Your task to perform on an android device: open chrome and create a bookmark for the current page Image 0: 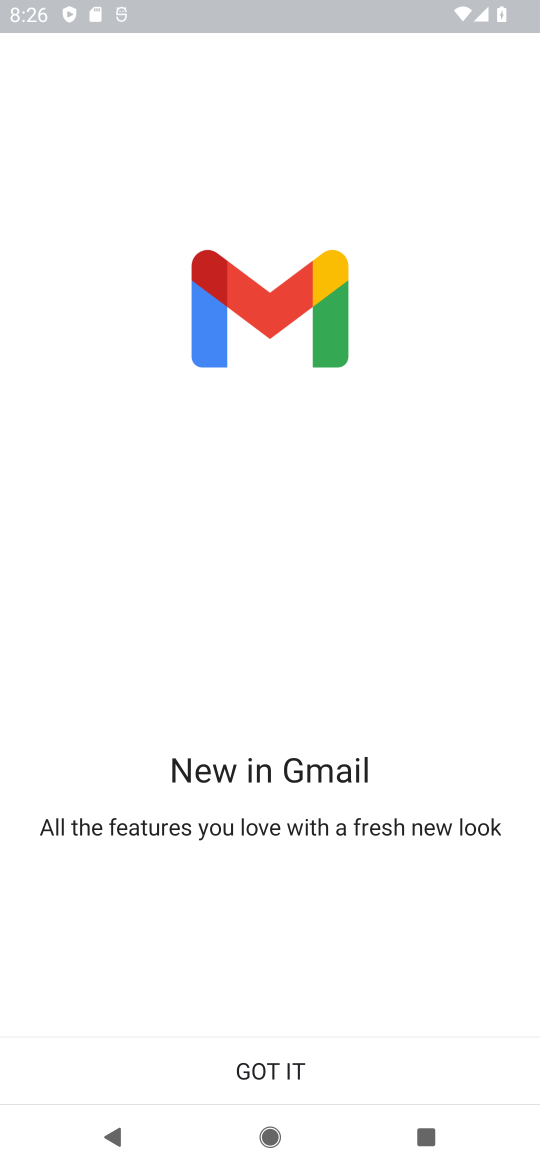
Step 0: press home button
Your task to perform on an android device: open chrome and create a bookmark for the current page Image 1: 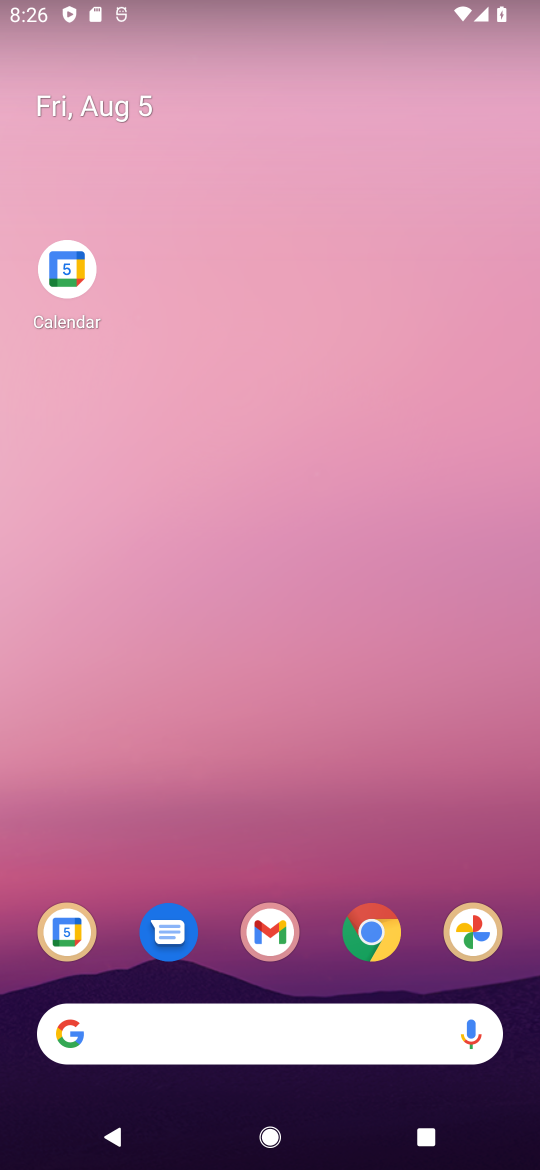
Step 1: click (379, 927)
Your task to perform on an android device: open chrome and create a bookmark for the current page Image 2: 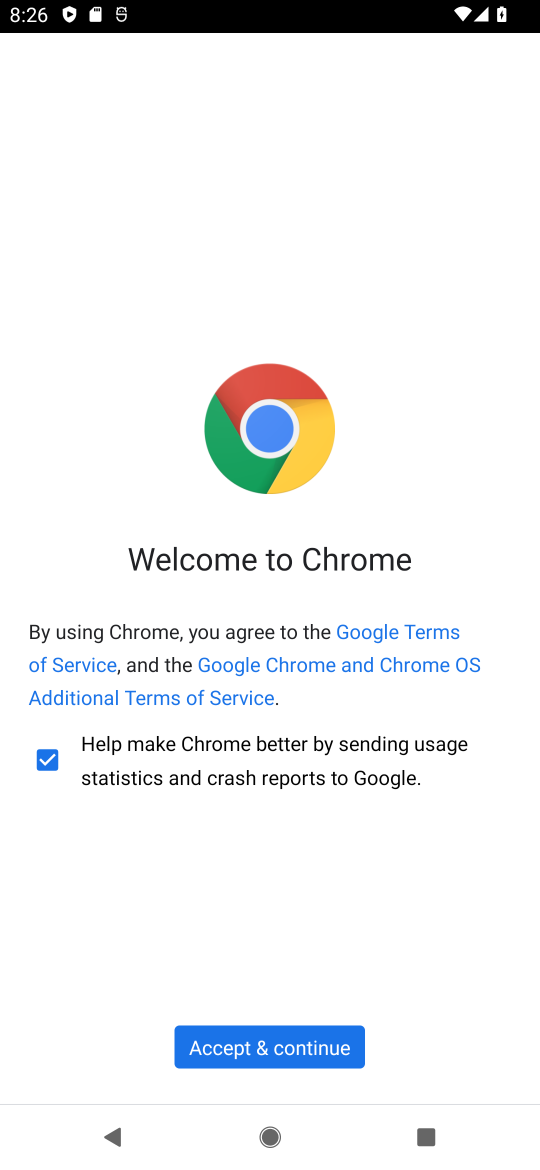
Step 2: click (228, 1044)
Your task to perform on an android device: open chrome and create a bookmark for the current page Image 3: 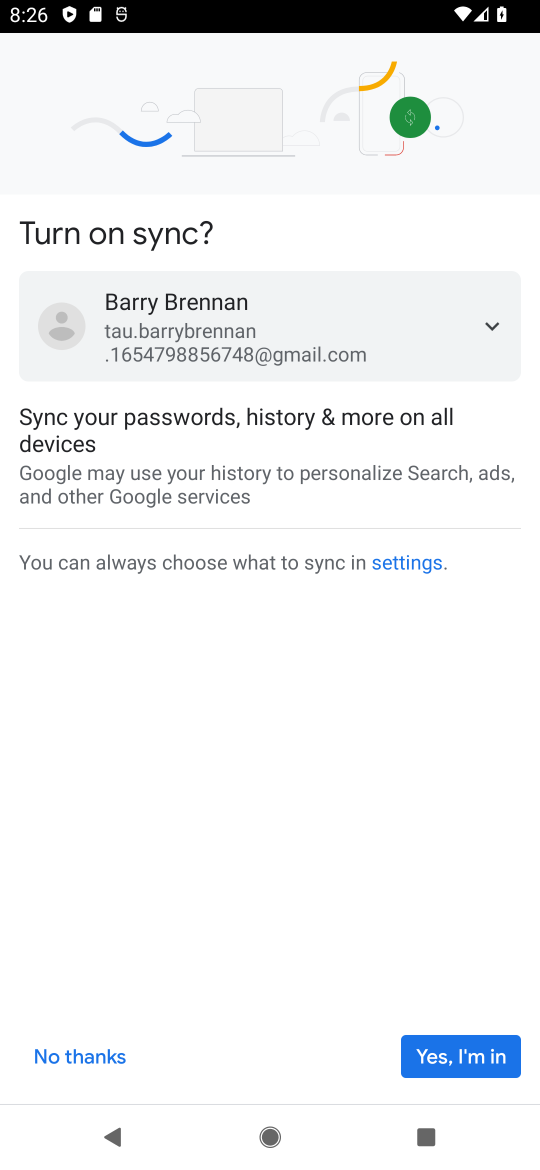
Step 3: click (426, 1061)
Your task to perform on an android device: open chrome and create a bookmark for the current page Image 4: 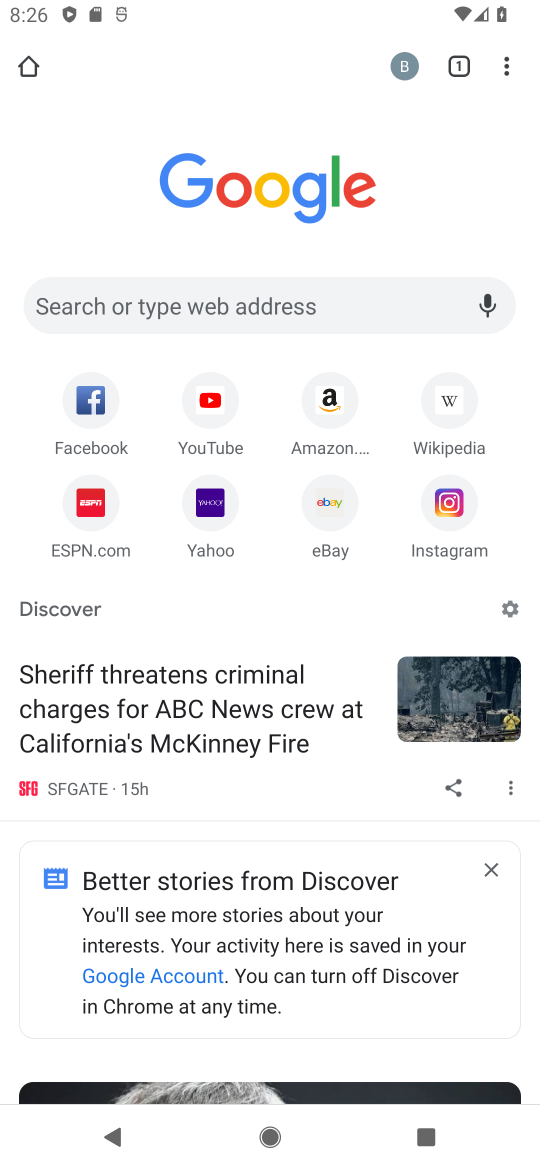
Step 4: click (515, 56)
Your task to perform on an android device: open chrome and create a bookmark for the current page Image 5: 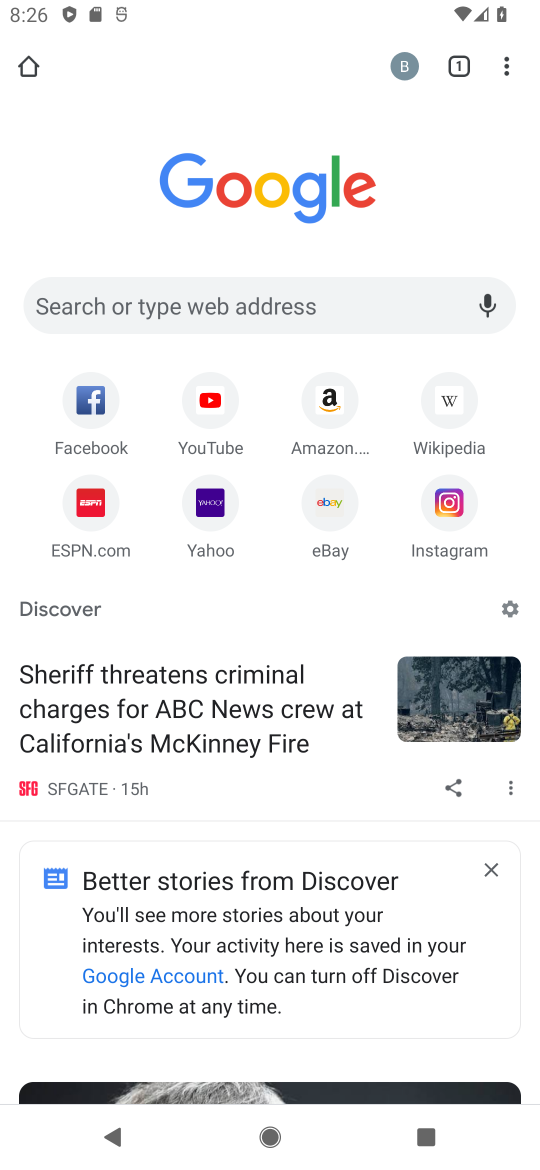
Step 5: click (511, 82)
Your task to perform on an android device: open chrome and create a bookmark for the current page Image 6: 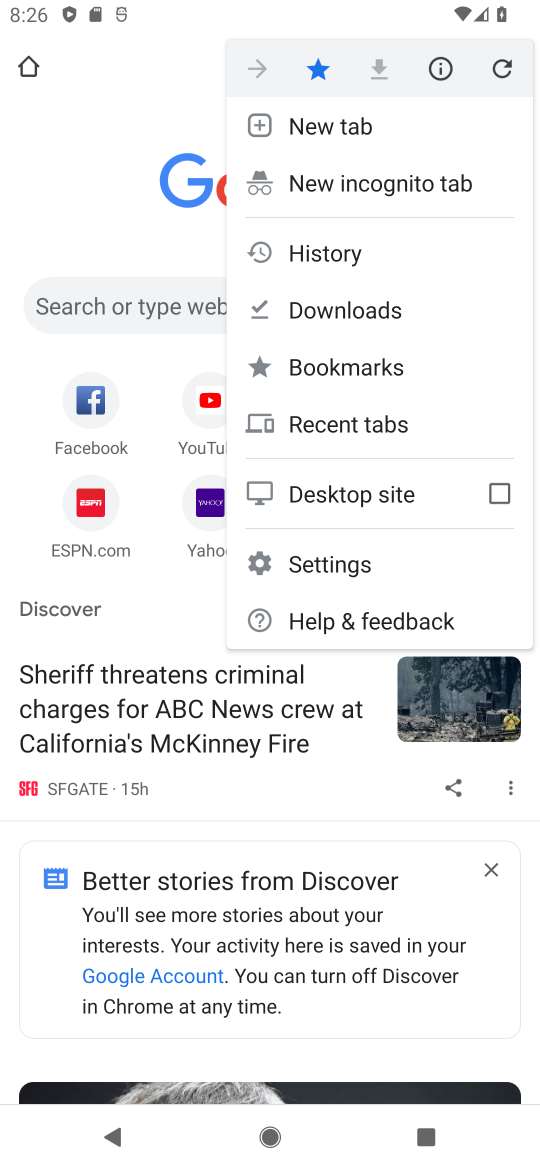
Step 6: task complete